Your task to perform on an android device: toggle javascript in the chrome app Image 0: 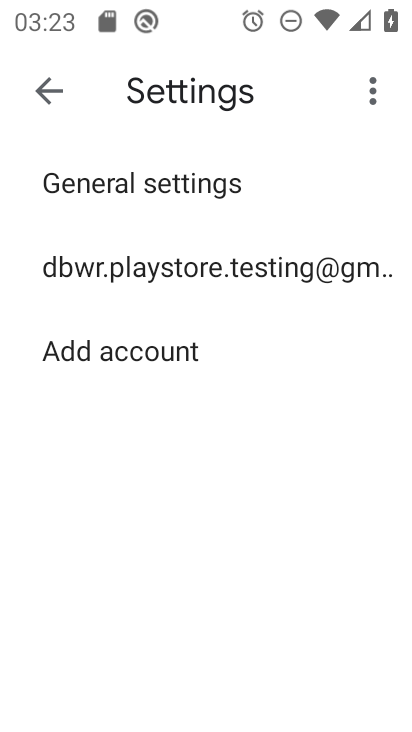
Step 0: press home button
Your task to perform on an android device: toggle javascript in the chrome app Image 1: 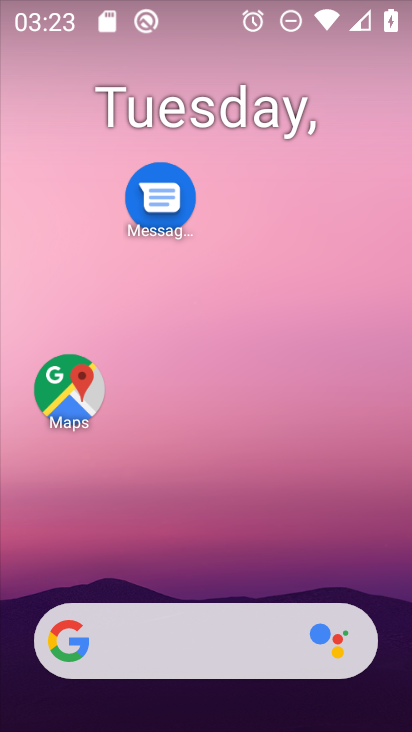
Step 1: drag from (214, 573) to (265, 213)
Your task to perform on an android device: toggle javascript in the chrome app Image 2: 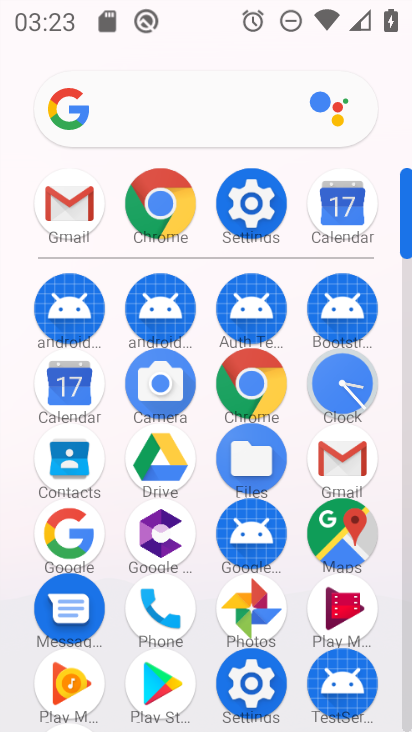
Step 2: click (154, 185)
Your task to perform on an android device: toggle javascript in the chrome app Image 3: 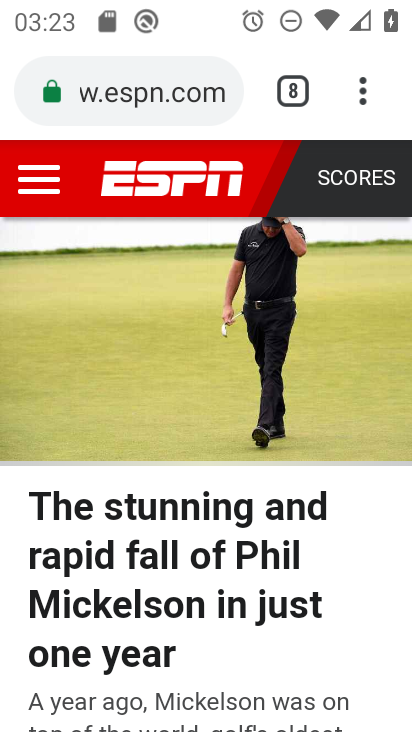
Step 3: drag from (357, 94) to (95, 550)
Your task to perform on an android device: toggle javascript in the chrome app Image 4: 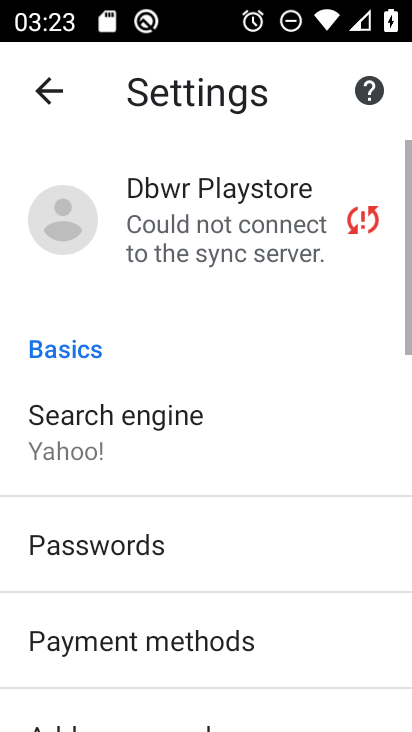
Step 4: drag from (155, 591) to (259, 285)
Your task to perform on an android device: toggle javascript in the chrome app Image 5: 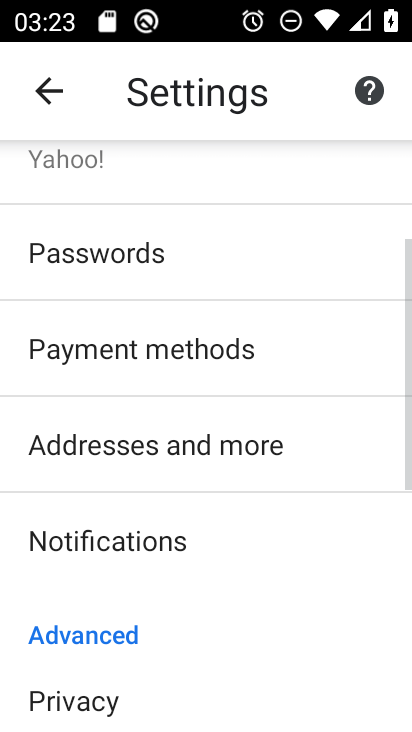
Step 5: drag from (262, 521) to (300, 269)
Your task to perform on an android device: toggle javascript in the chrome app Image 6: 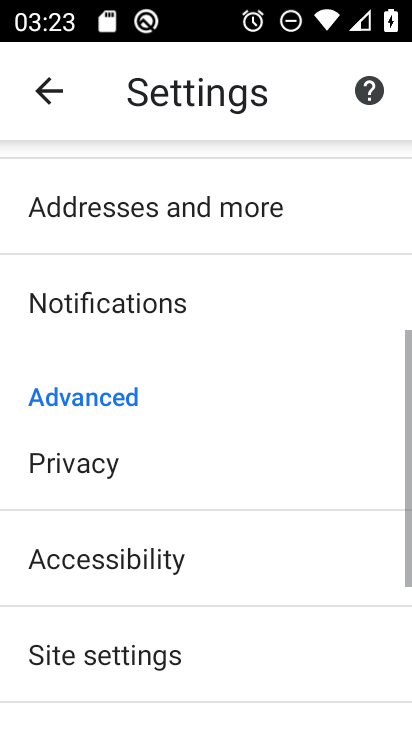
Step 6: drag from (265, 551) to (303, 320)
Your task to perform on an android device: toggle javascript in the chrome app Image 7: 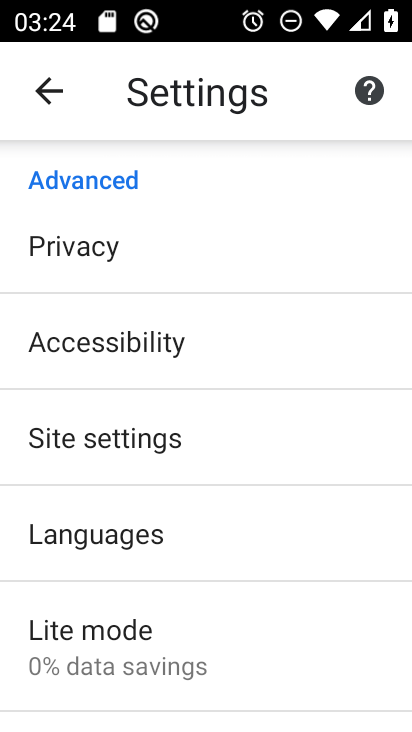
Step 7: click (169, 431)
Your task to perform on an android device: toggle javascript in the chrome app Image 8: 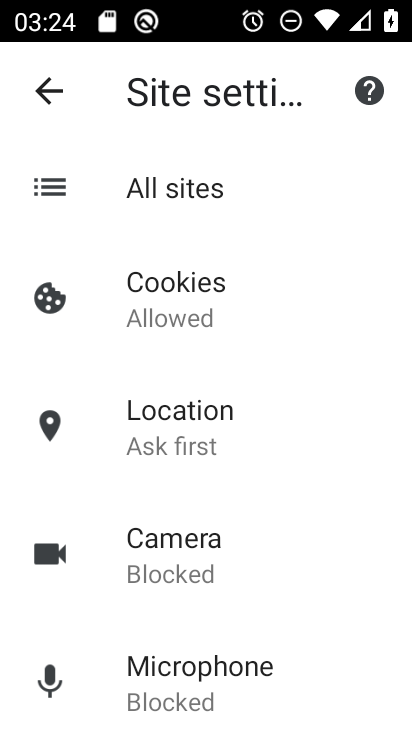
Step 8: drag from (213, 608) to (276, 319)
Your task to perform on an android device: toggle javascript in the chrome app Image 9: 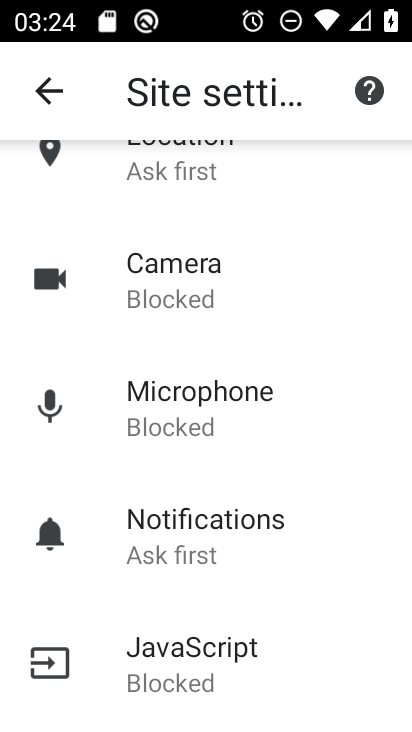
Step 9: click (229, 660)
Your task to perform on an android device: toggle javascript in the chrome app Image 10: 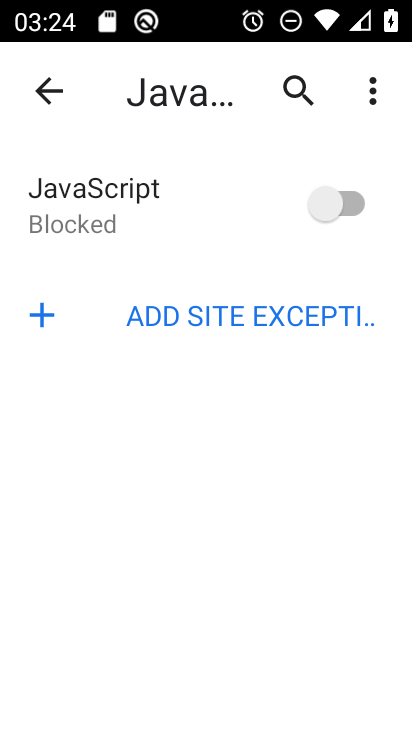
Step 10: click (362, 199)
Your task to perform on an android device: toggle javascript in the chrome app Image 11: 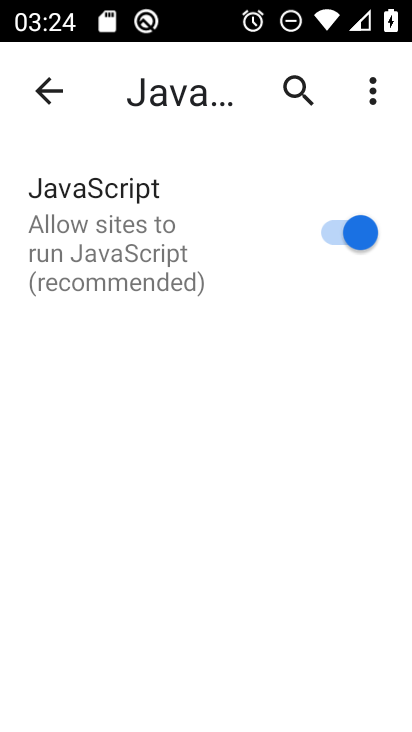
Step 11: task complete